Your task to perform on an android device: change the upload size in google photos Image 0: 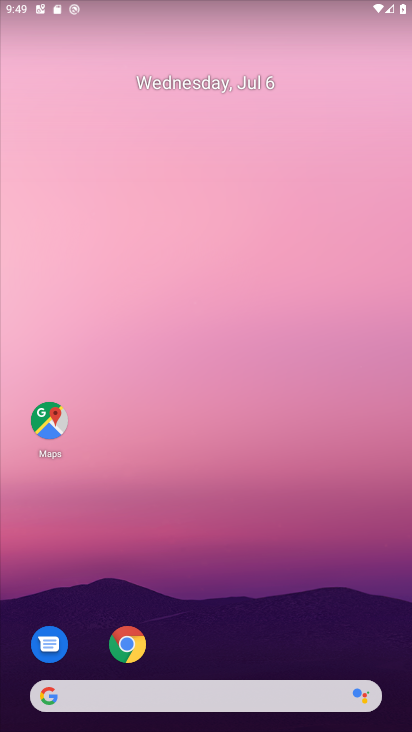
Step 0: drag from (200, 583) to (185, 149)
Your task to perform on an android device: change the upload size in google photos Image 1: 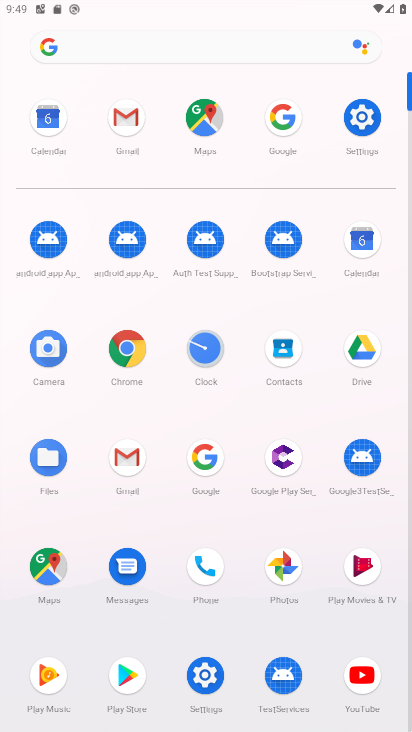
Step 1: click (284, 573)
Your task to perform on an android device: change the upload size in google photos Image 2: 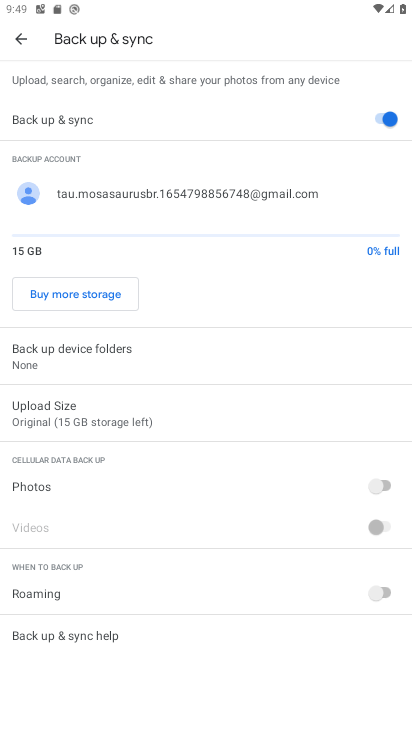
Step 2: click (107, 414)
Your task to perform on an android device: change the upload size in google photos Image 3: 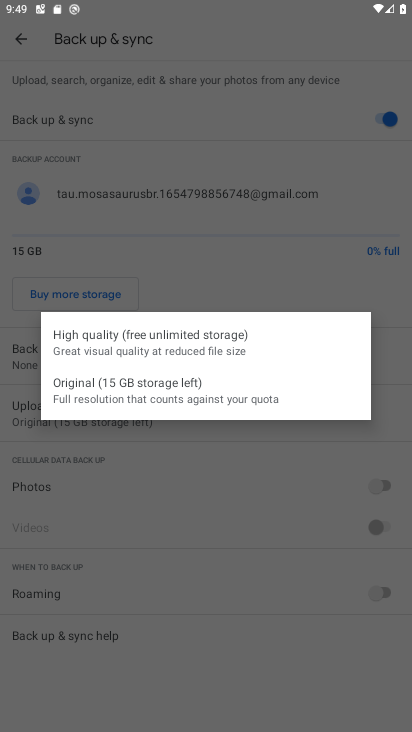
Step 3: click (114, 342)
Your task to perform on an android device: change the upload size in google photos Image 4: 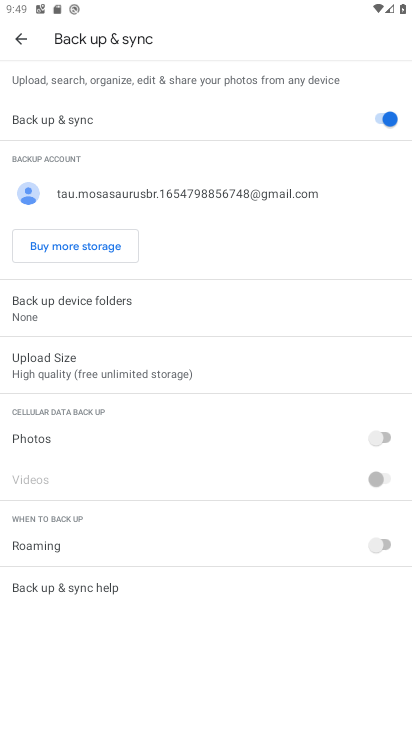
Step 4: task complete